Your task to perform on an android device: turn on the 24-hour format for clock Image 0: 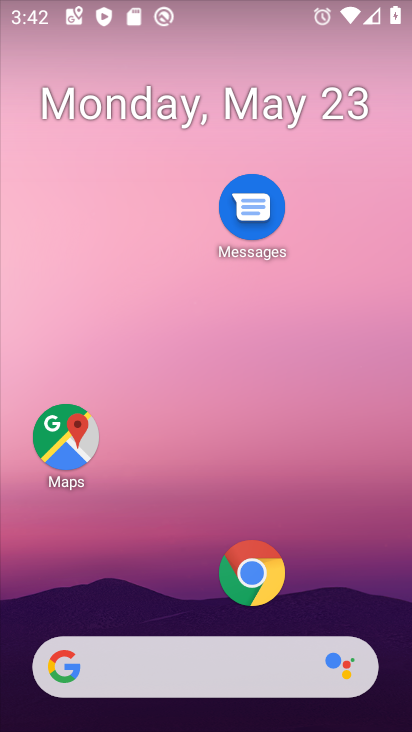
Step 0: drag from (224, 674) to (390, 96)
Your task to perform on an android device: turn on the 24-hour format for clock Image 1: 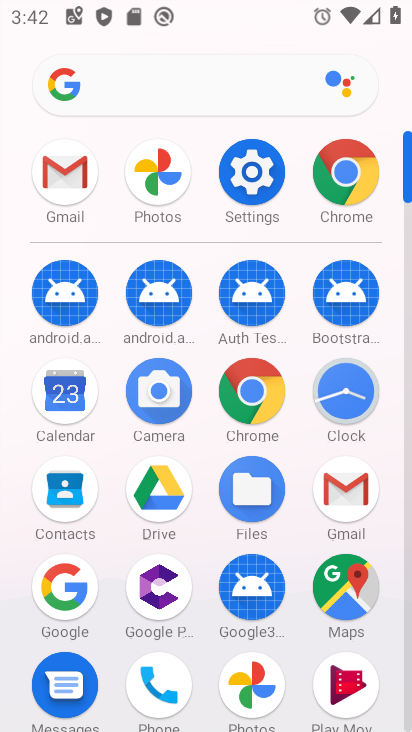
Step 1: click (334, 397)
Your task to perform on an android device: turn on the 24-hour format for clock Image 2: 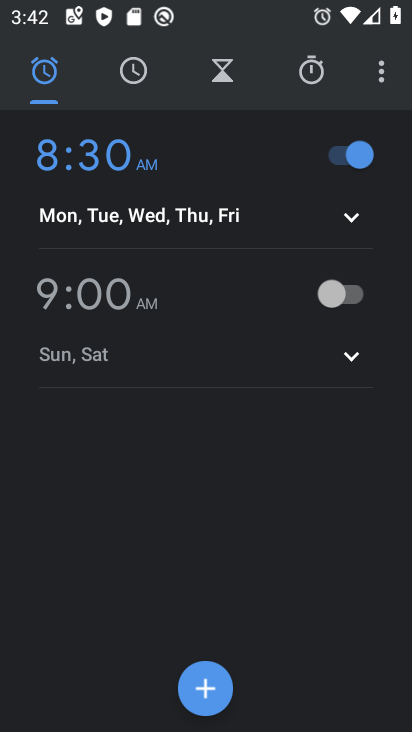
Step 2: click (382, 75)
Your task to perform on an android device: turn on the 24-hour format for clock Image 3: 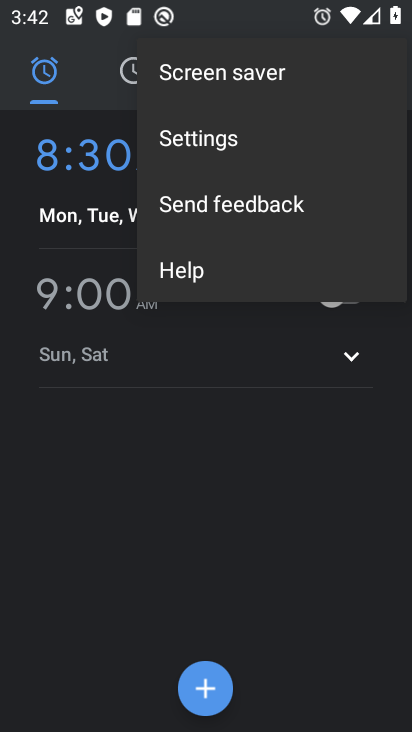
Step 3: click (222, 153)
Your task to perform on an android device: turn on the 24-hour format for clock Image 4: 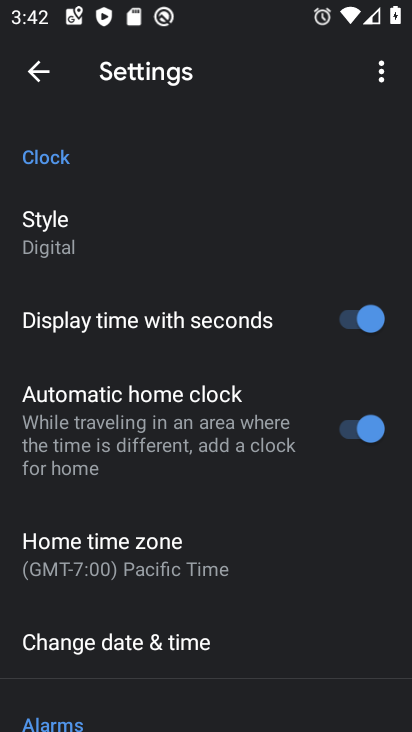
Step 4: drag from (221, 671) to (196, 89)
Your task to perform on an android device: turn on the 24-hour format for clock Image 5: 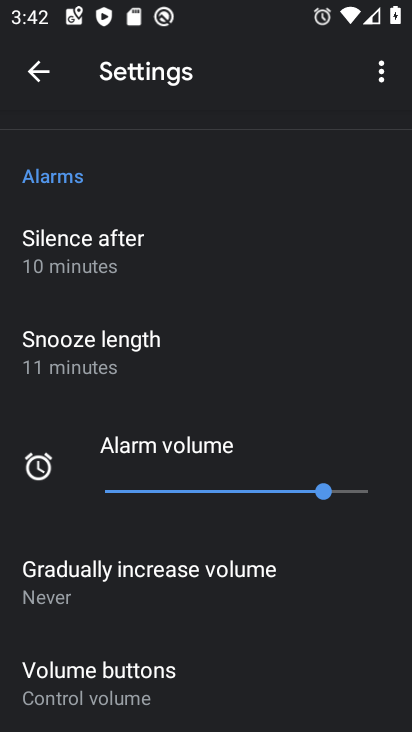
Step 5: drag from (204, 128) to (207, 631)
Your task to perform on an android device: turn on the 24-hour format for clock Image 6: 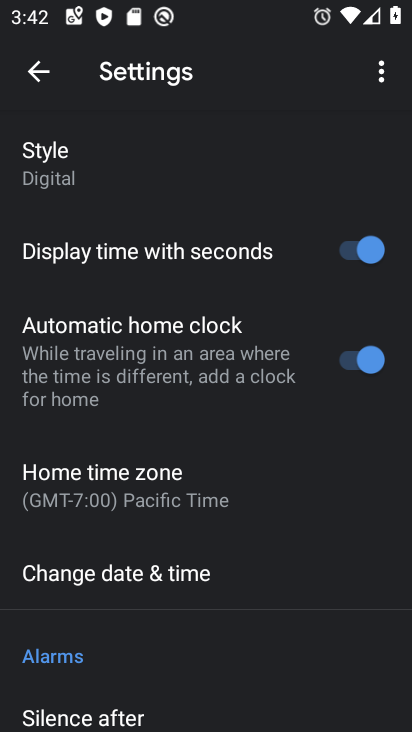
Step 6: click (123, 581)
Your task to perform on an android device: turn on the 24-hour format for clock Image 7: 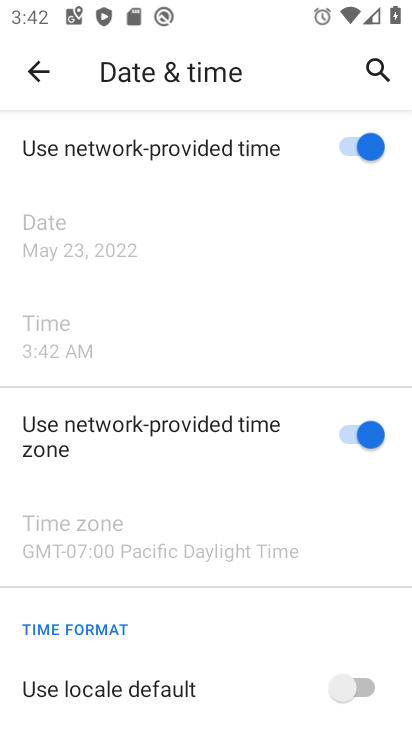
Step 7: drag from (241, 689) to (193, 111)
Your task to perform on an android device: turn on the 24-hour format for clock Image 8: 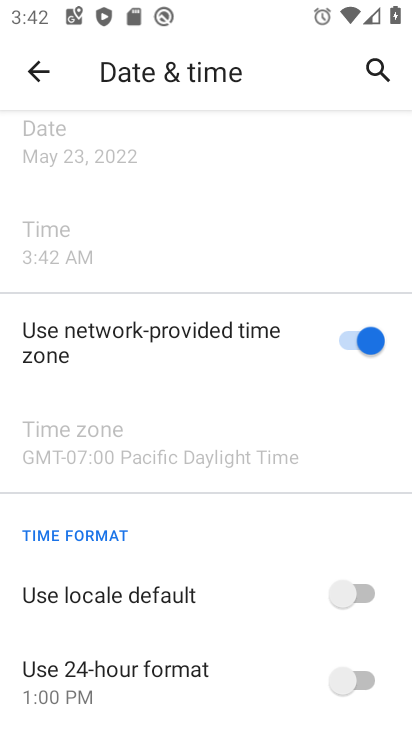
Step 8: click (362, 678)
Your task to perform on an android device: turn on the 24-hour format for clock Image 9: 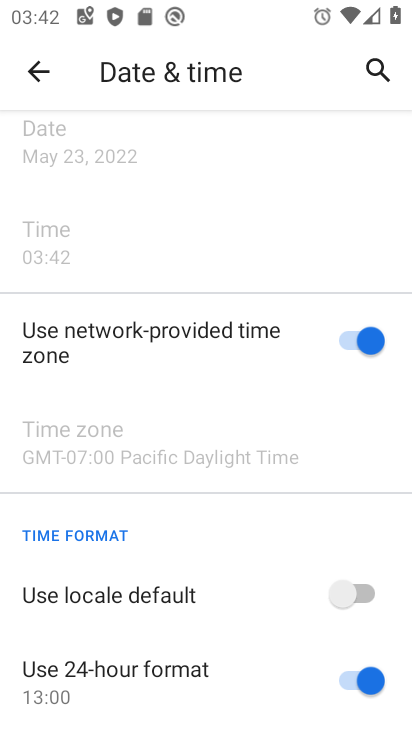
Step 9: task complete